Your task to perform on an android device: Open Google Image 0: 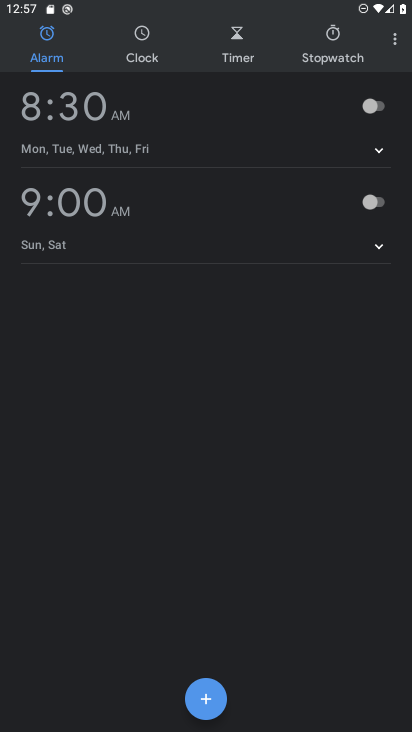
Step 0: press home button
Your task to perform on an android device: Open Google Image 1: 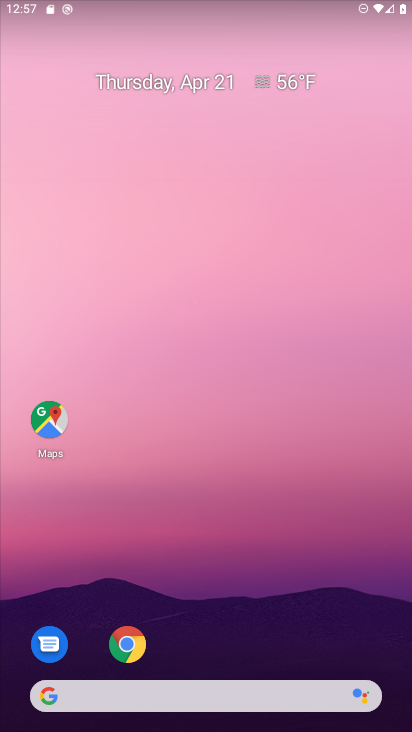
Step 1: drag from (171, 617) to (200, 242)
Your task to perform on an android device: Open Google Image 2: 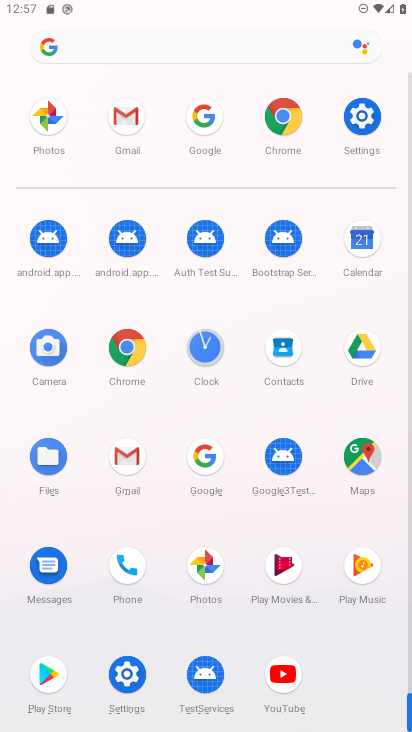
Step 2: click (206, 459)
Your task to perform on an android device: Open Google Image 3: 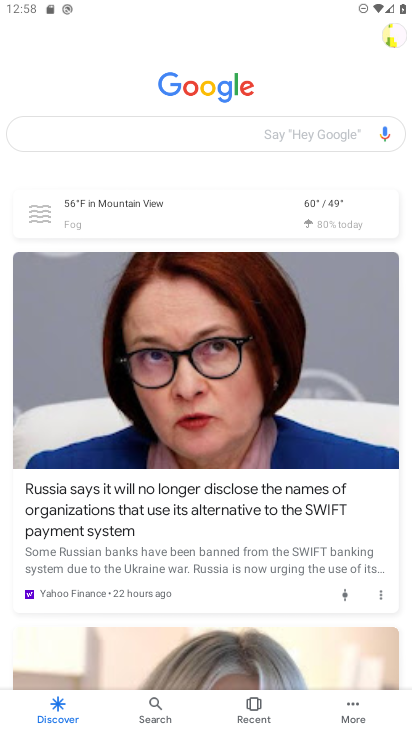
Step 3: task complete